Your task to perform on an android device: Open Chrome and go to the settings page Image 0: 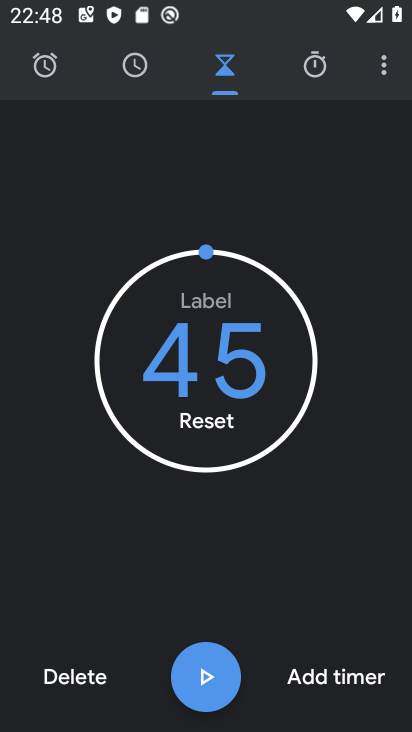
Step 0: press home button
Your task to perform on an android device: Open Chrome and go to the settings page Image 1: 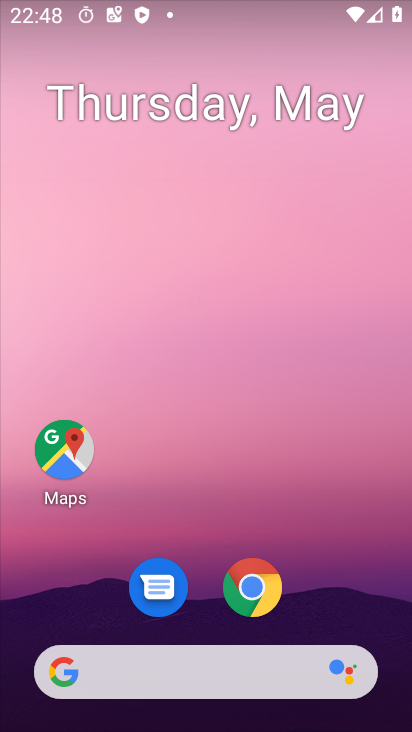
Step 1: click (251, 594)
Your task to perform on an android device: Open Chrome and go to the settings page Image 2: 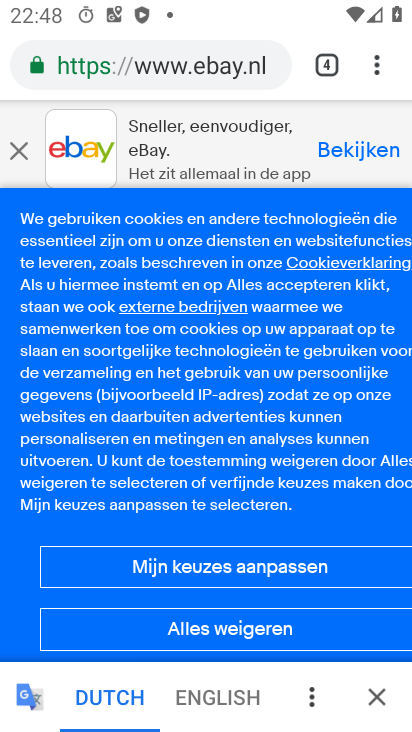
Step 2: click (378, 65)
Your task to perform on an android device: Open Chrome and go to the settings page Image 3: 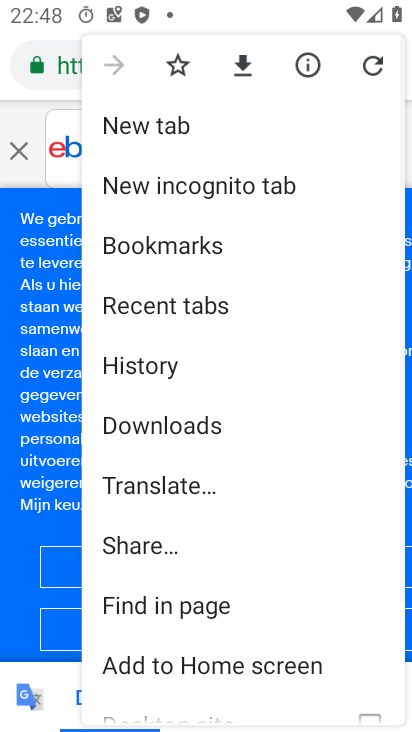
Step 3: drag from (272, 563) to (281, 76)
Your task to perform on an android device: Open Chrome and go to the settings page Image 4: 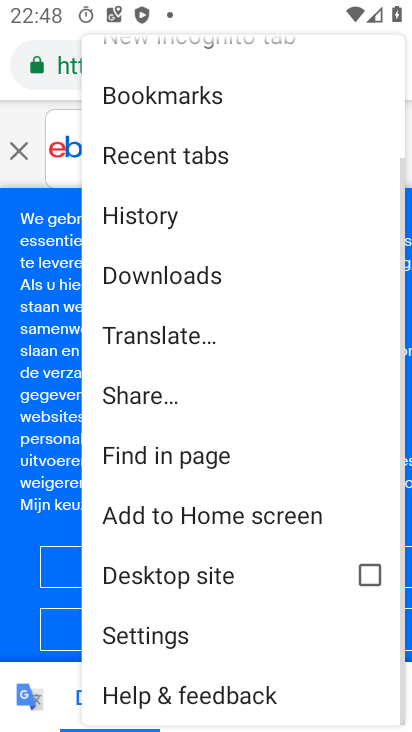
Step 4: click (120, 636)
Your task to perform on an android device: Open Chrome and go to the settings page Image 5: 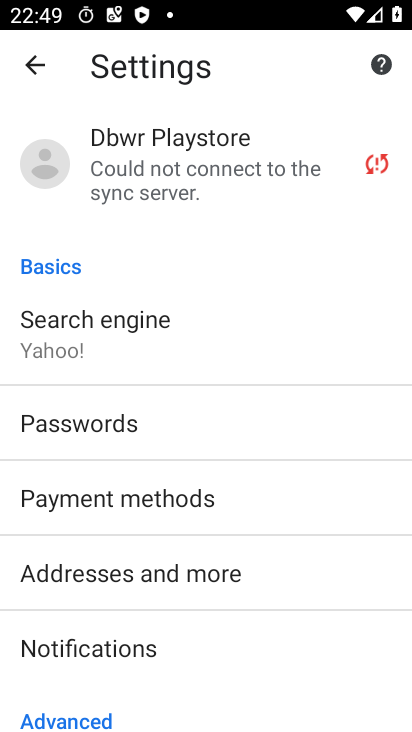
Step 5: task complete